Your task to perform on an android device: Open calendar and show me the first week of next month Image 0: 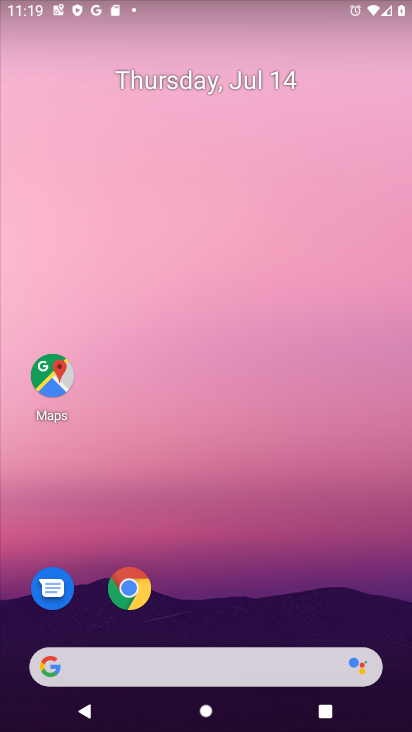
Step 0: press home button
Your task to perform on an android device: Open calendar and show me the first week of next month Image 1: 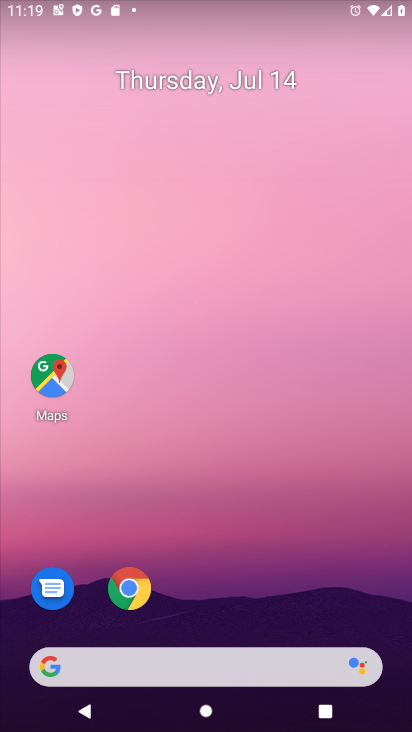
Step 1: drag from (247, 603) to (276, 9)
Your task to perform on an android device: Open calendar and show me the first week of next month Image 2: 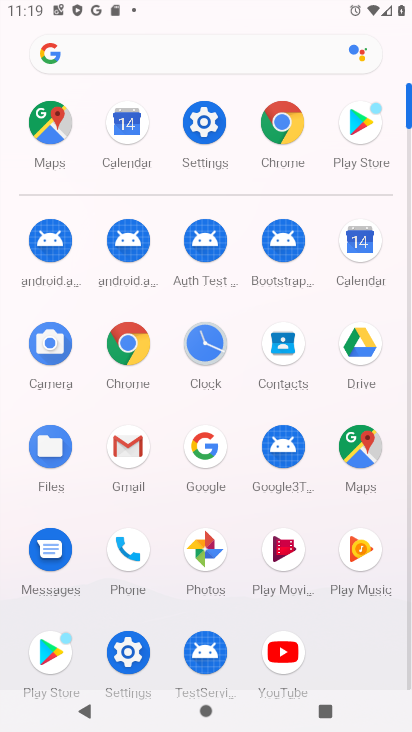
Step 2: click (134, 122)
Your task to perform on an android device: Open calendar and show me the first week of next month Image 3: 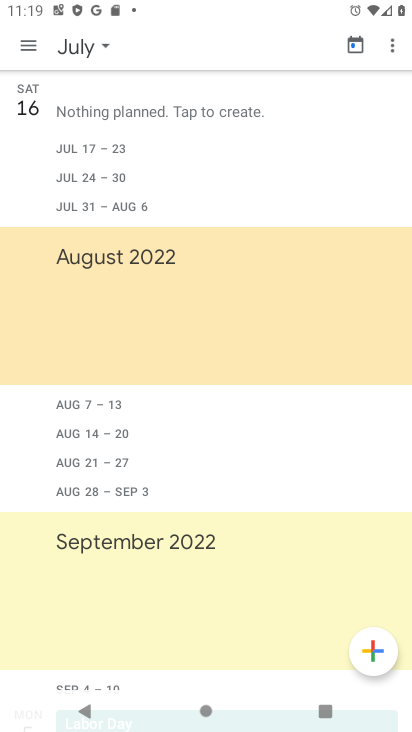
Step 3: click (98, 47)
Your task to perform on an android device: Open calendar and show me the first week of next month Image 4: 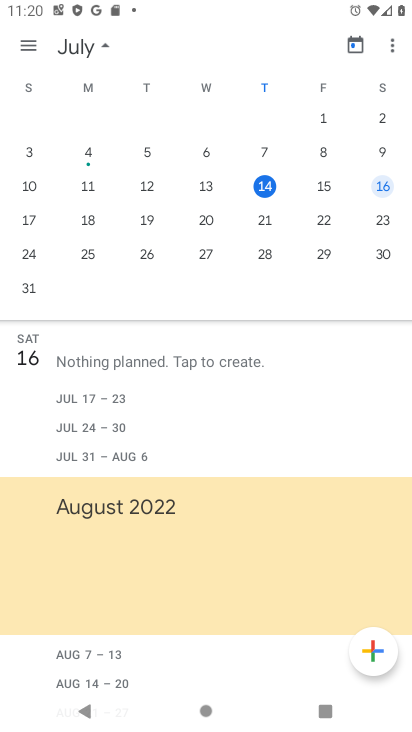
Step 4: task complete